Your task to perform on an android device: clear all cookies in the chrome app Image 0: 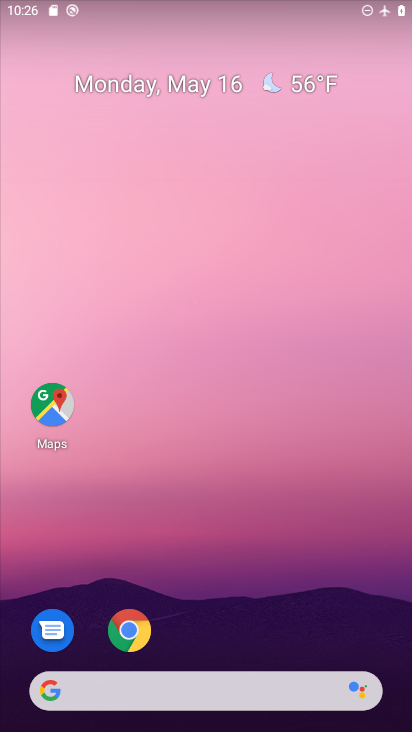
Step 0: click (133, 631)
Your task to perform on an android device: clear all cookies in the chrome app Image 1: 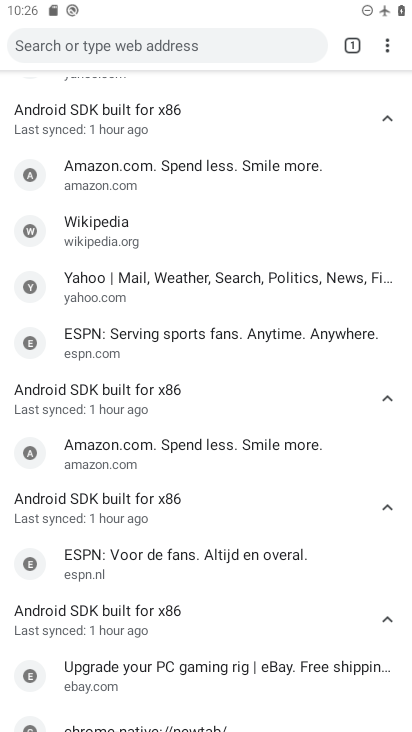
Step 1: click (385, 43)
Your task to perform on an android device: clear all cookies in the chrome app Image 2: 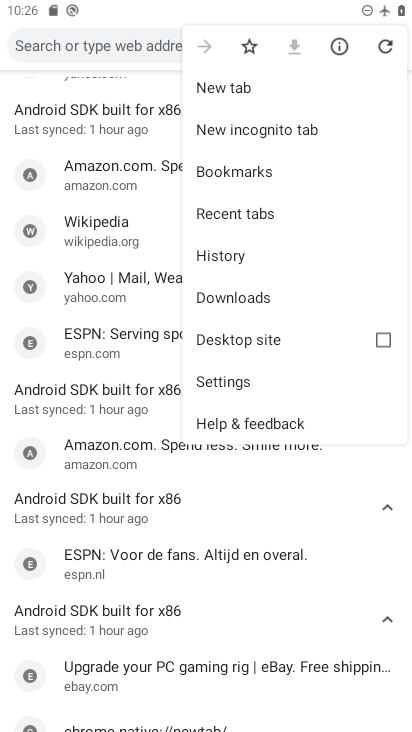
Step 2: click (249, 374)
Your task to perform on an android device: clear all cookies in the chrome app Image 3: 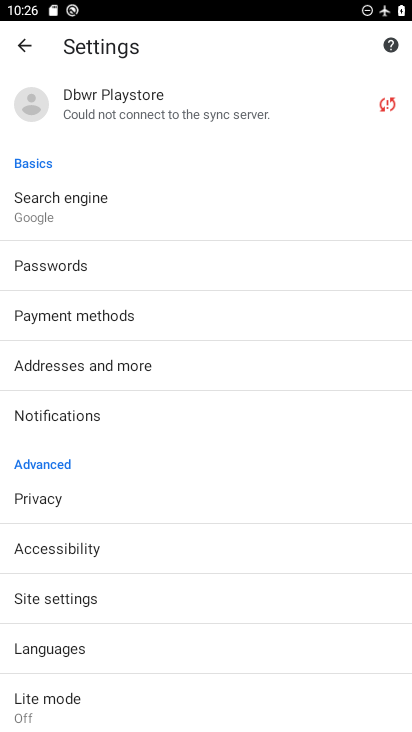
Step 3: click (138, 501)
Your task to perform on an android device: clear all cookies in the chrome app Image 4: 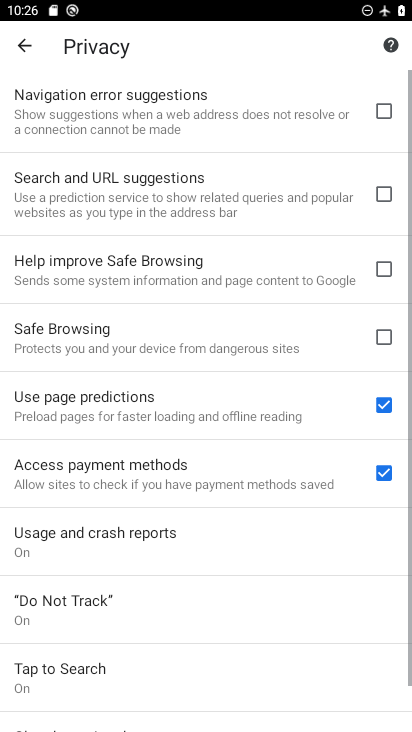
Step 4: drag from (223, 588) to (242, 371)
Your task to perform on an android device: clear all cookies in the chrome app Image 5: 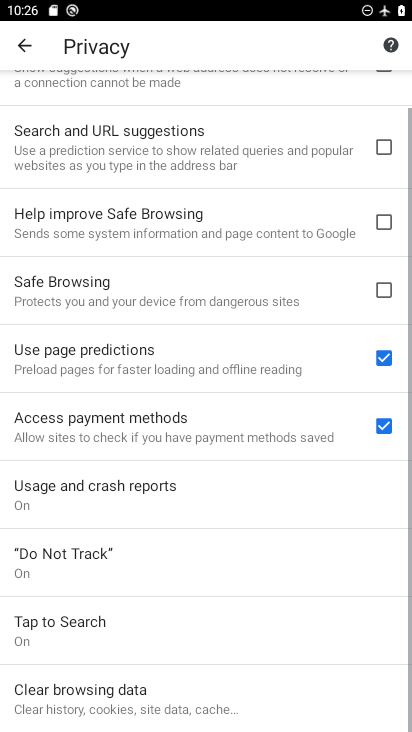
Step 5: click (182, 704)
Your task to perform on an android device: clear all cookies in the chrome app Image 6: 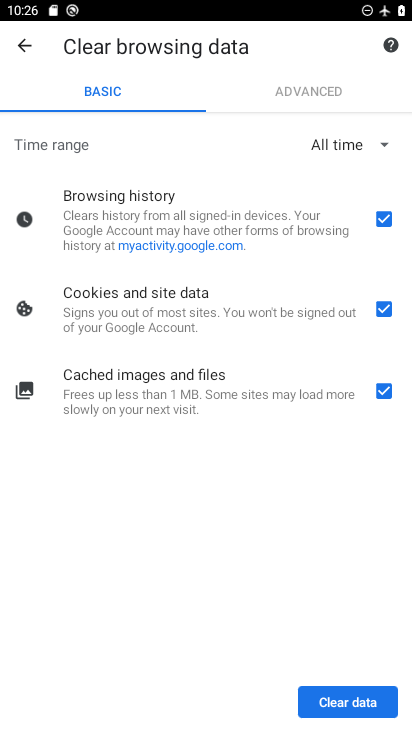
Step 6: click (383, 377)
Your task to perform on an android device: clear all cookies in the chrome app Image 7: 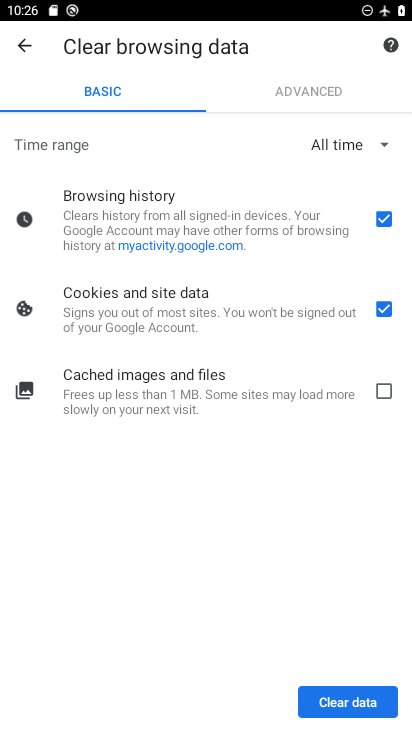
Step 7: click (380, 211)
Your task to perform on an android device: clear all cookies in the chrome app Image 8: 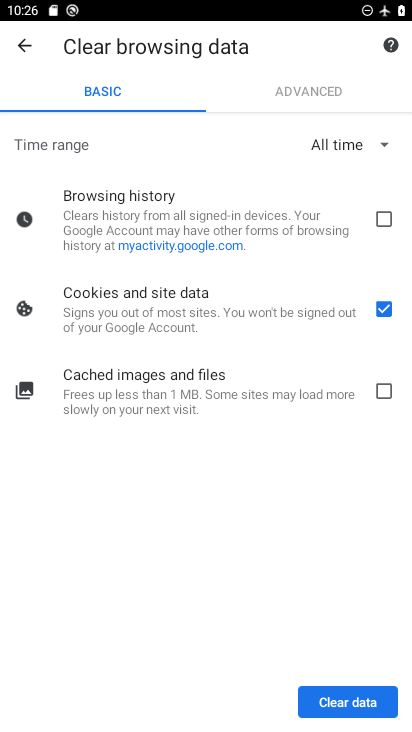
Step 8: click (337, 703)
Your task to perform on an android device: clear all cookies in the chrome app Image 9: 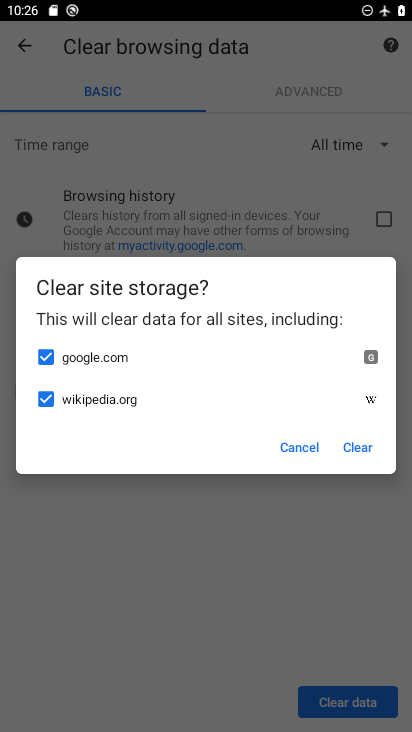
Step 9: click (353, 447)
Your task to perform on an android device: clear all cookies in the chrome app Image 10: 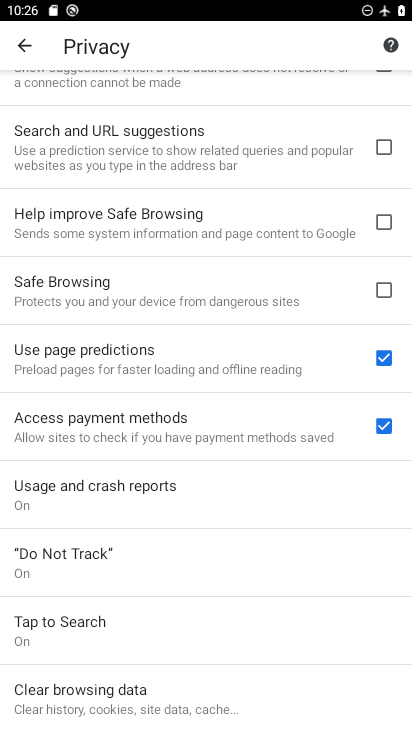
Step 10: task complete